Your task to perform on an android device: Add "razer blade" to the cart on target.com Image 0: 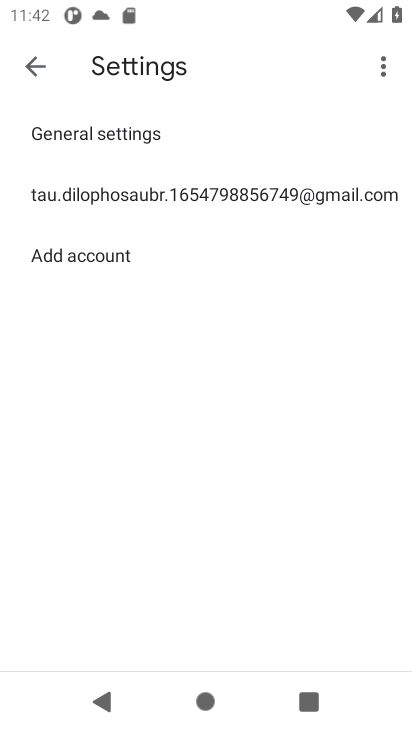
Step 0: click (101, 617)
Your task to perform on an android device: Add "razer blade" to the cart on target.com Image 1: 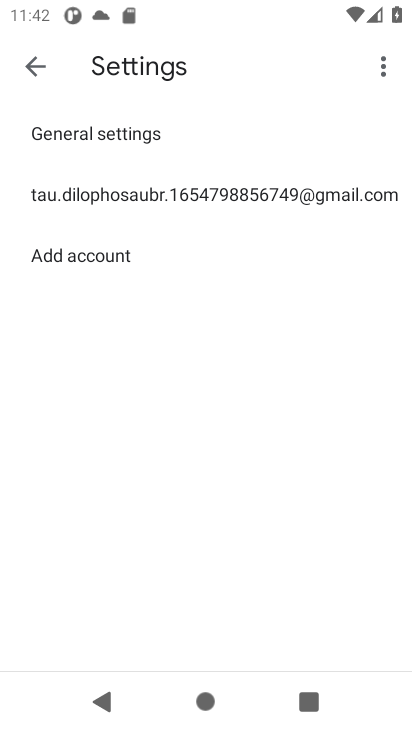
Step 1: press home button
Your task to perform on an android device: Add "razer blade" to the cart on target.com Image 2: 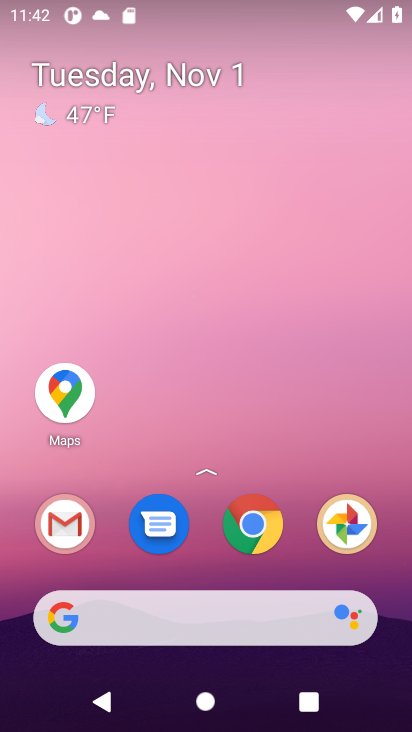
Step 2: click (117, 613)
Your task to perform on an android device: Add "razer blade" to the cart on target.com Image 3: 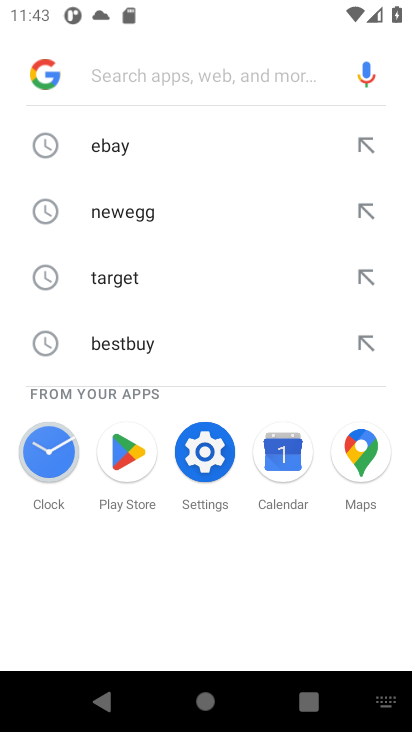
Step 3: type "target.com"
Your task to perform on an android device: Add "razer blade" to the cart on target.com Image 4: 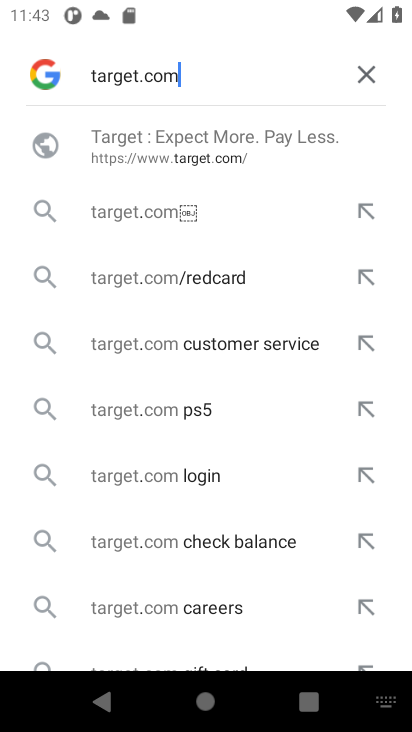
Step 4: press enter
Your task to perform on an android device: Add "razer blade" to the cart on target.com Image 5: 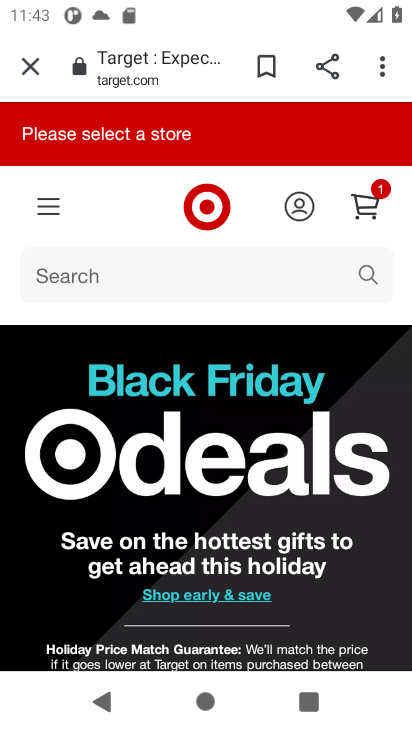
Step 5: click (49, 279)
Your task to perform on an android device: Add "razer blade" to the cart on target.com Image 6: 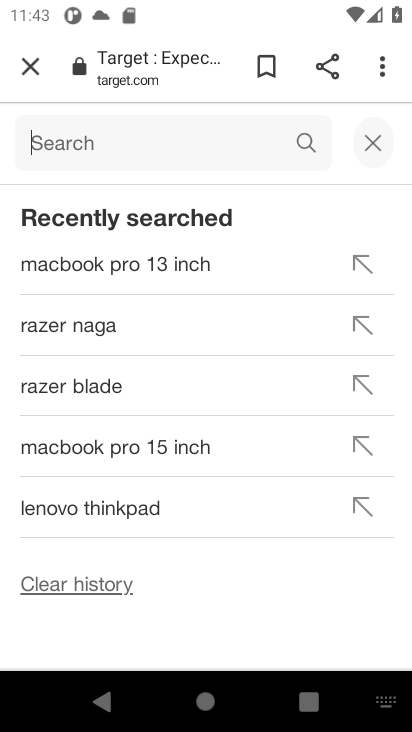
Step 6: type "razer blade"
Your task to perform on an android device: Add "razer blade" to the cart on target.com Image 7: 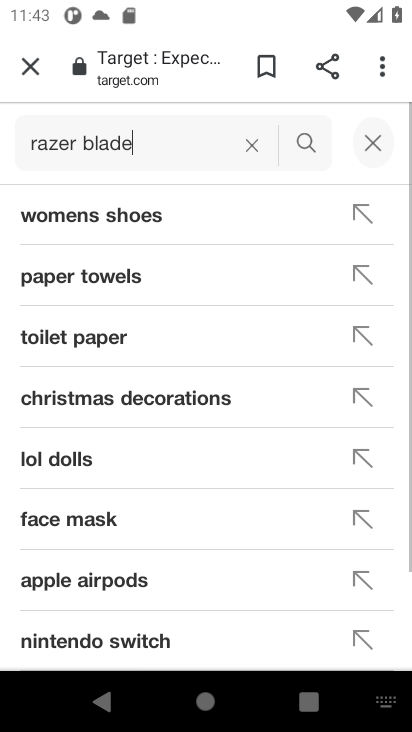
Step 7: press enter
Your task to perform on an android device: Add "razer blade" to the cart on target.com Image 8: 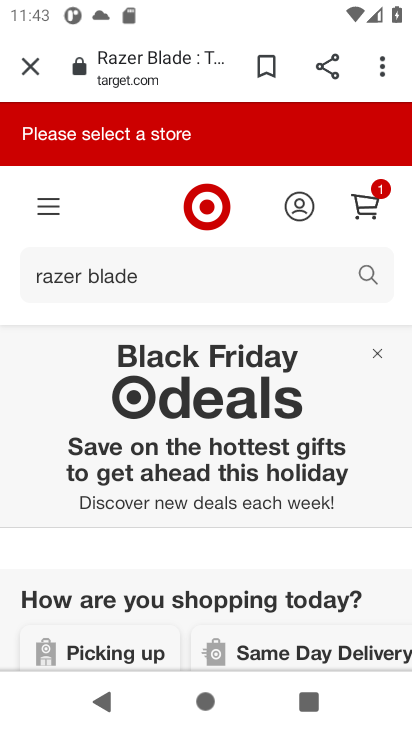
Step 8: drag from (267, 547) to (263, 371)
Your task to perform on an android device: Add "razer blade" to the cart on target.com Image 9: 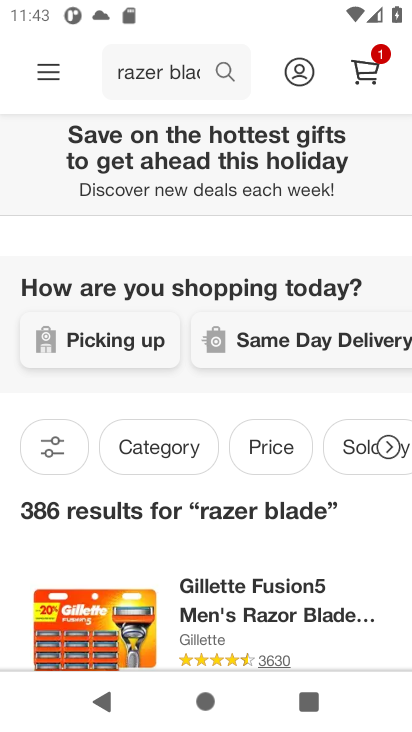
Step 9: drag from (248, 562) to (260, 380)
Your task to perform on an android device: Add "razer blade" to the cart on target.com Image 10: 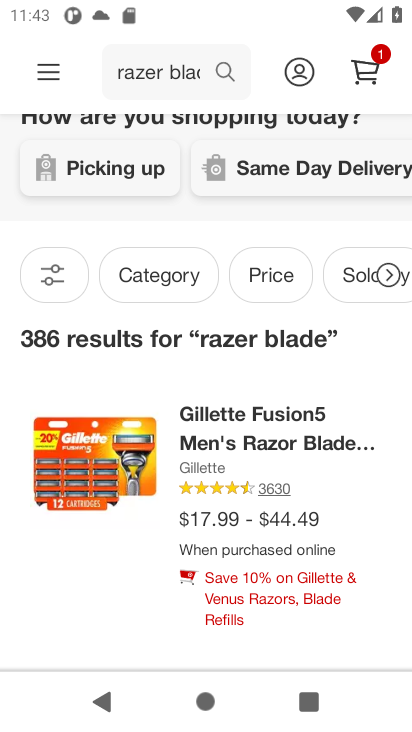
Step 10: drag from (263, 536) to (265, 331)
Your task to perform on an android device: Add "razer blade" to the cart on target.com Image 11: 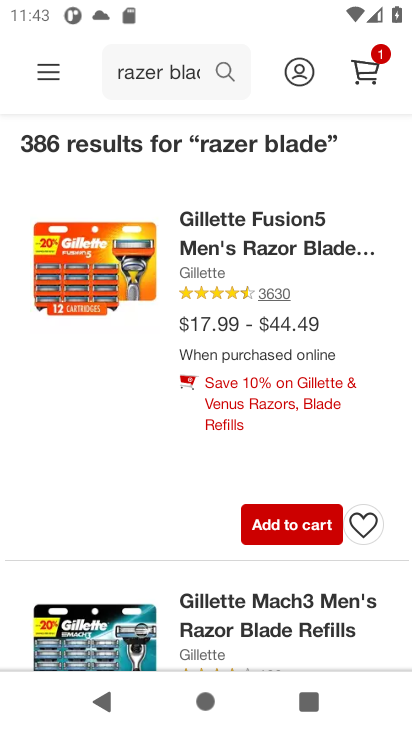
Step 11: click (275, 523)
Your task to perform on an android device: Add "razer blade" to the cart on target.com Image 12: 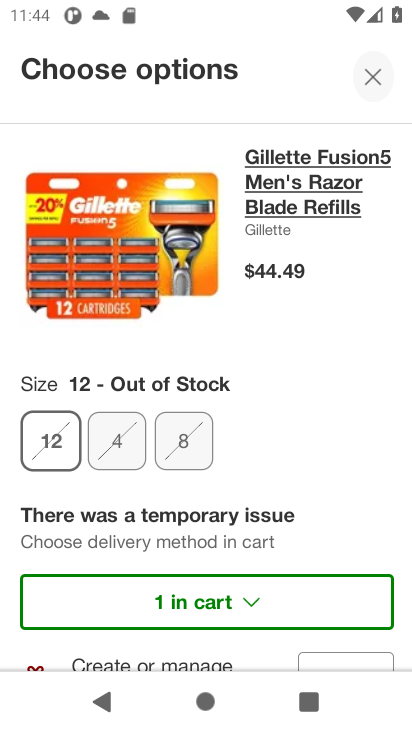
Step 12: task complete